Your task to perform on an android device: turn vacation reply on in the gmail app Image 0: 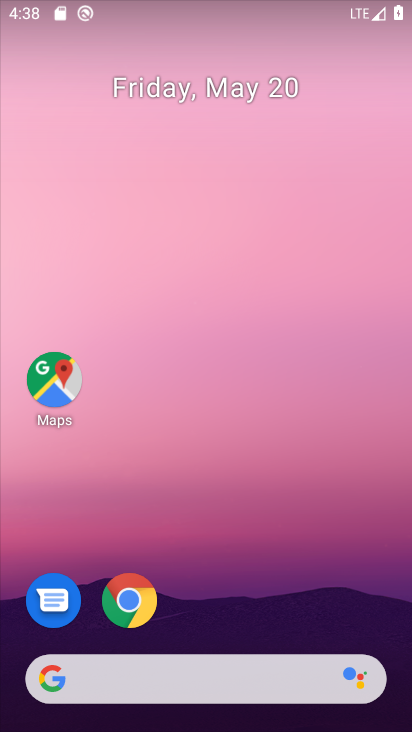
Step 0: drag from (271, 243) to (250, 33)
Your task to perform on an android device: turn vacation reply on in the gmail app Image 1: 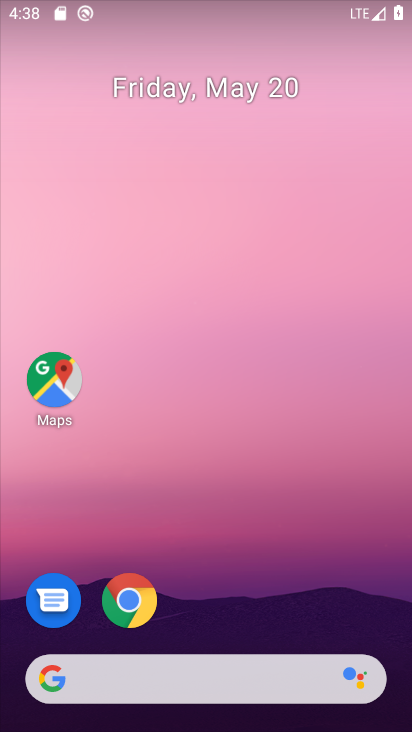
Step 1: drag from (286, 482) to (221, 75)
Your task to perform on an android device: turn vacation reply on in the gmail app Image 2: 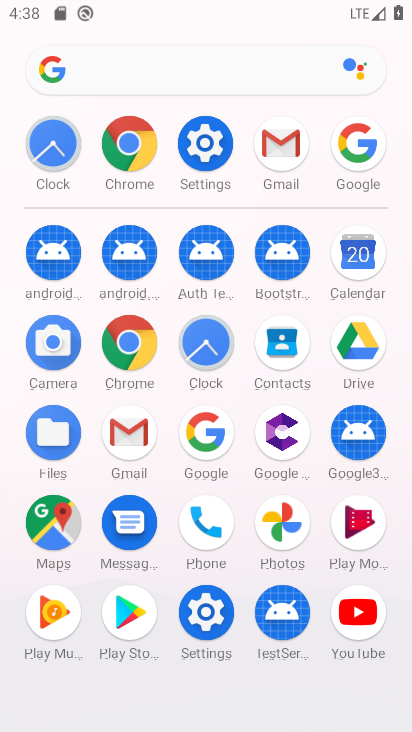
Step 2: click (276, 145)
Your task to perform on an android device: turn vacation reply on in the gmail app Image 3: 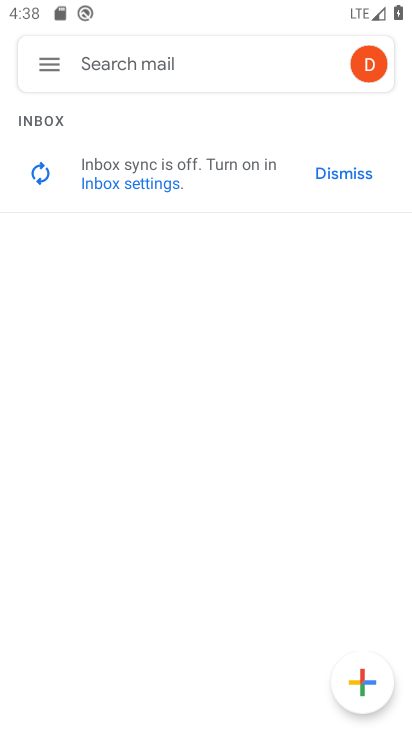
Step 3: click (50, 65)
Your task to perform on an android device: turn vacation reply on in the gmail app Image 4: 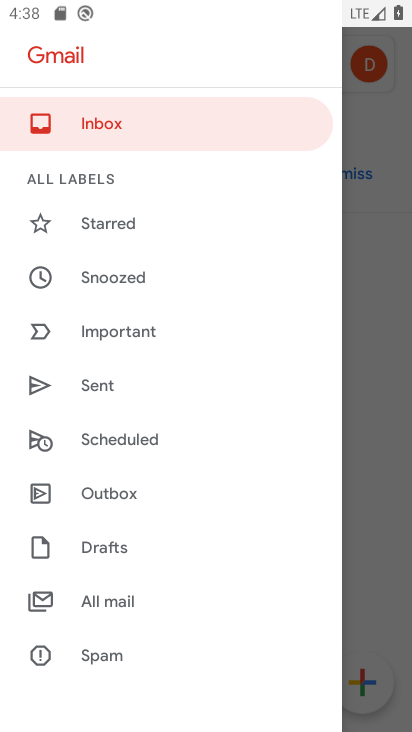
Step 4: drag from (239, 641) to (173, 167)
Your task to perform on an android device: turn vacation reply on in the gmail app Image 5: 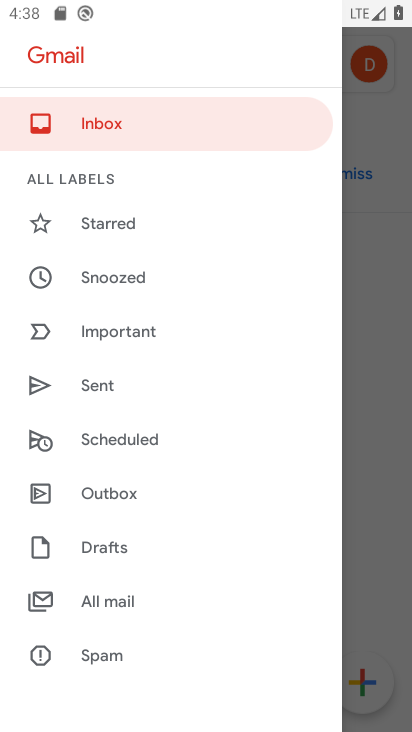
Step 5: drag from (202, 604) to (123, 268)
Your task to perform on an android device: turn vacation reply on in the gmail app Image 6: 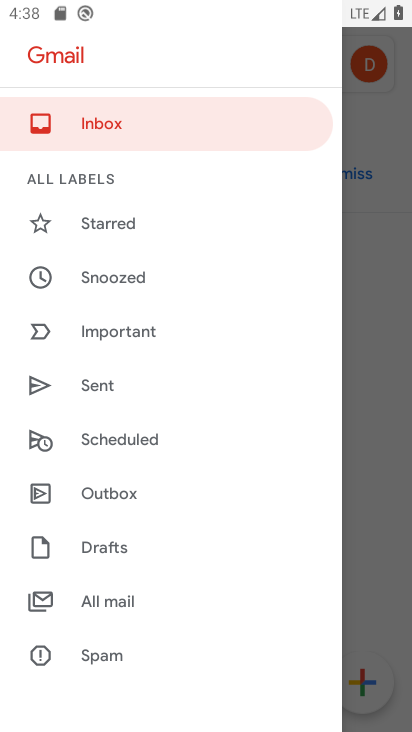
Step 6: drag from (178, 526) to (181, 141)
Your task to perform on an android device: turn vacation reply on in the gmail app Image 7: 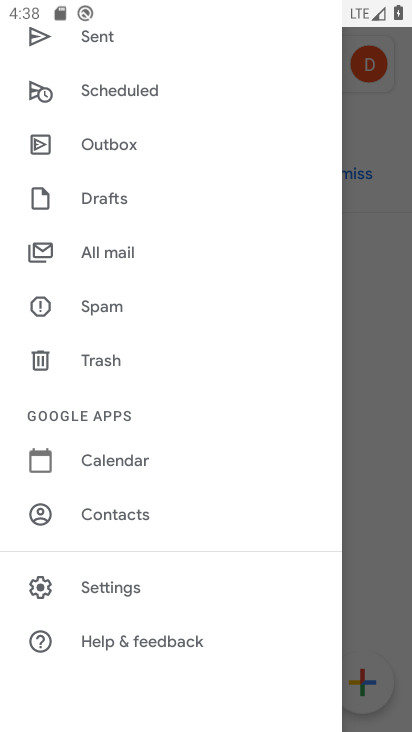
Step 7: click (183, 573)
Your task to perform on an android device: turn vacation reply on in the gmail app Image 8: 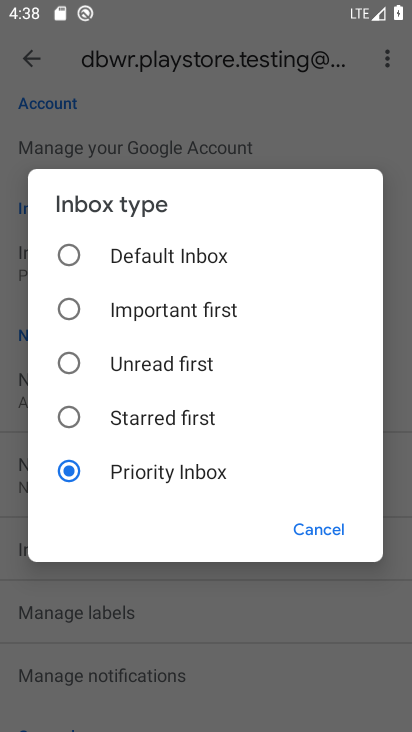
Step 8: click (328, 536)
Your task to perform on an android device: turn vacation reply on in the gmail app Image 9: 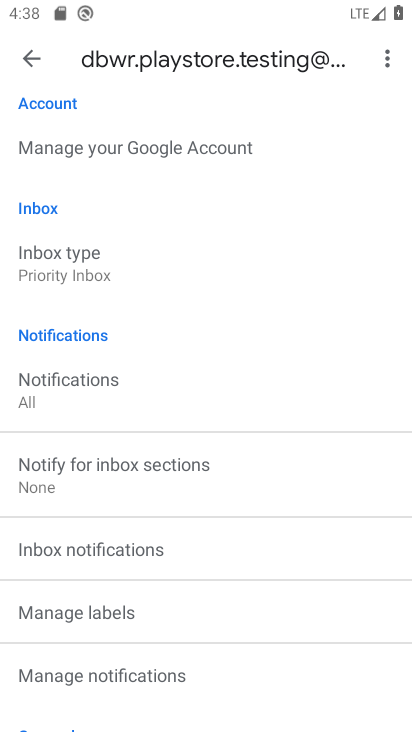
Step 9: drag from (247, 614) to (236, 91)
Your task to perform on an android device: turn vacation reply on in the gmail app Image 10: 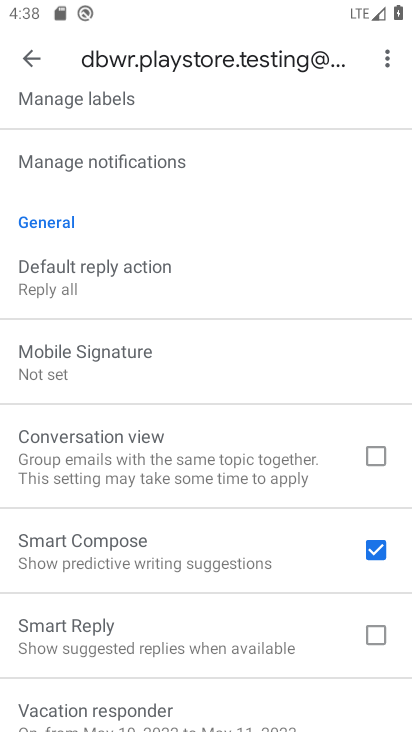
Step 10: drag from (256, 559) to (212, 242)
Your task to perform on an android device: turn vacation reply on in the gmail app Image 11: 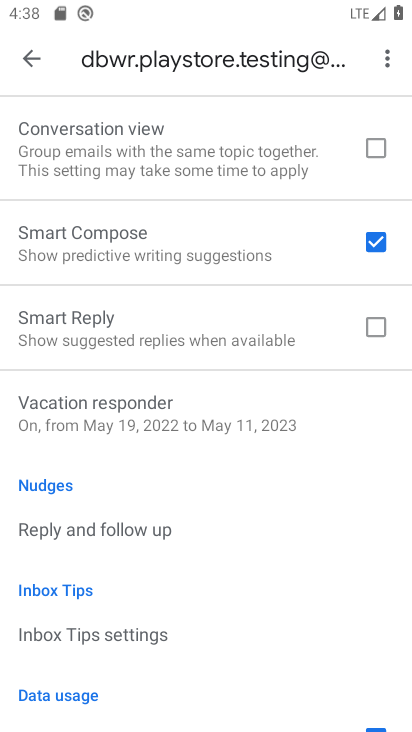
Step 11: click (212, 404)
Your task to perform on an android device: turn vacation reply on in the gmail app Image 12: 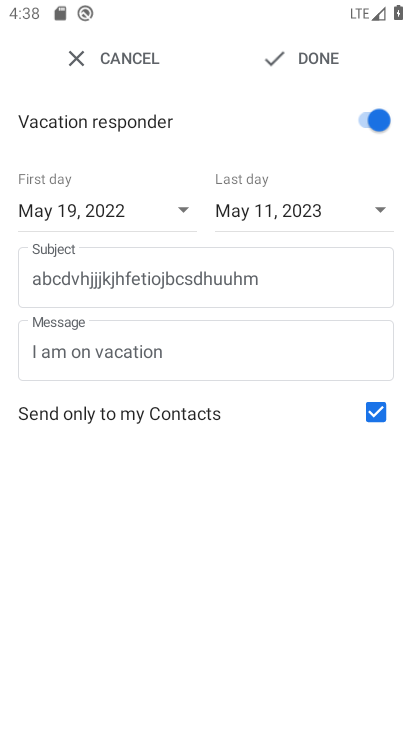
Step 12: click (309, 54)
Your task to perform on an android device: turn vacation reply on in the gmail app Image 13: 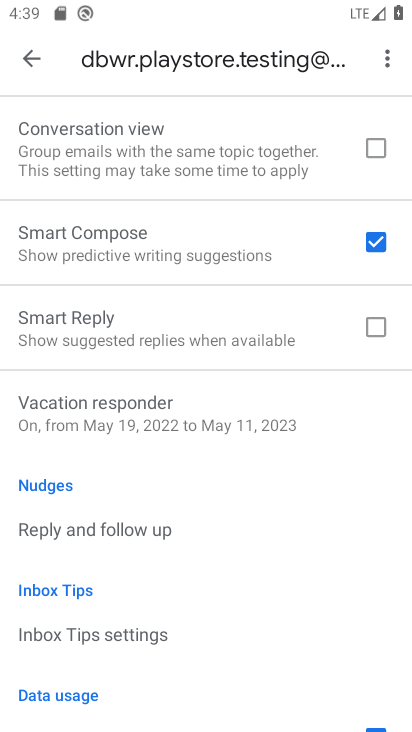
Step 13: task complete